Your task to perform on an android device: empty trash in google photos Image 0: 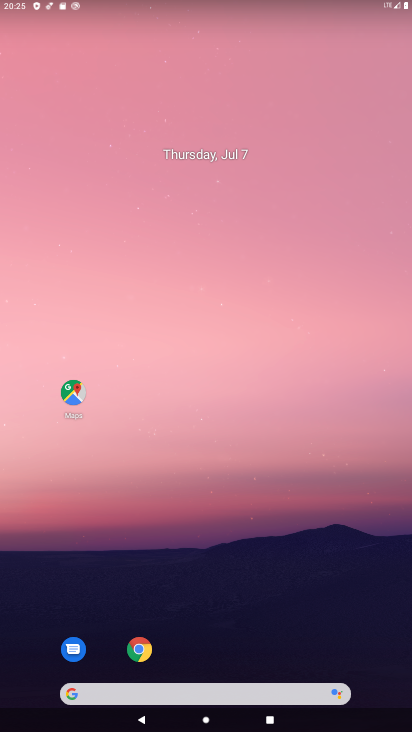
Step 0: press home button
Your task to perform on an android device: empty trash in google photos Image 1: 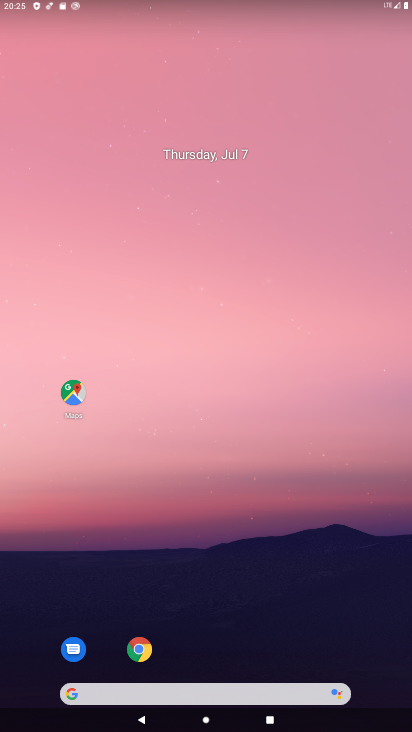
Step 1: drag from (209, 569) to (162, 82)
Your task to perform on an android device: empty trash in google photos Image 2: 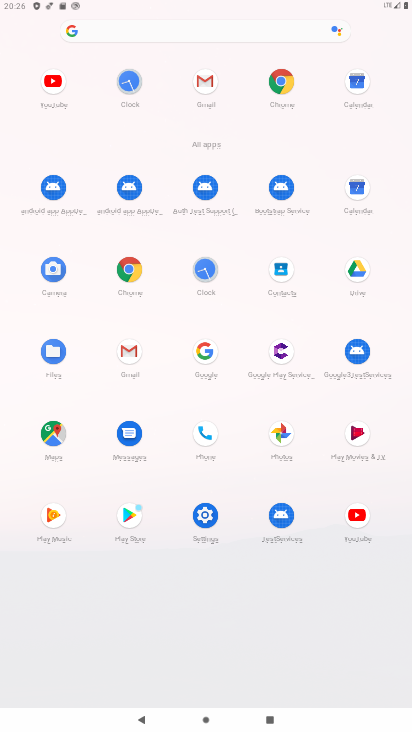
Step 2: click (283, 433)
Your task to perform on an android device: empty trash in google photos Image 3: 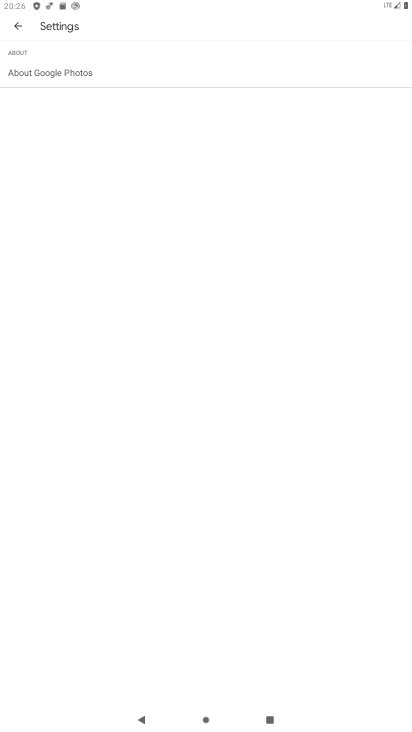
Step 3: click (15, 24)
Your task to perform on an android device: empty trash in google photos Image 4: 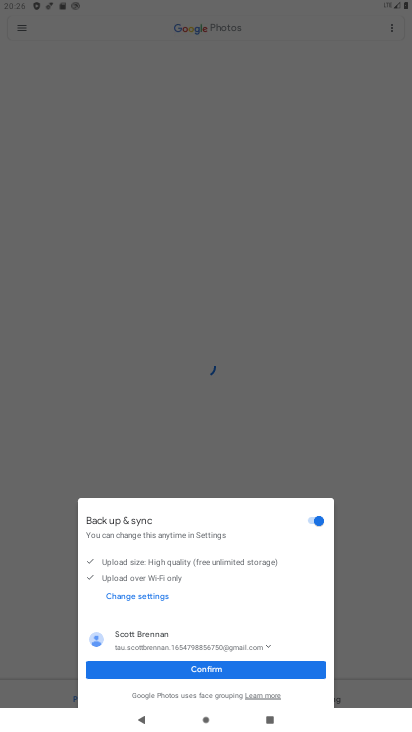
Step 4: click (180, 671)
Your task to perform on an android device: empty trash in google photos Image 5: 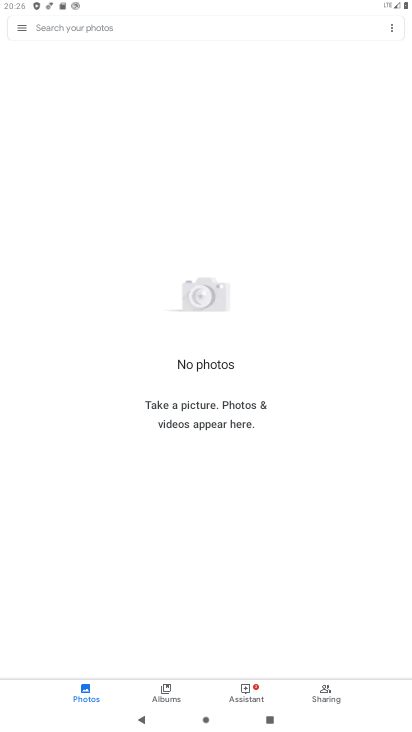
Step 5: click (25, 23)
Your task to perform on an android device: empty trash in google photos Image 6: 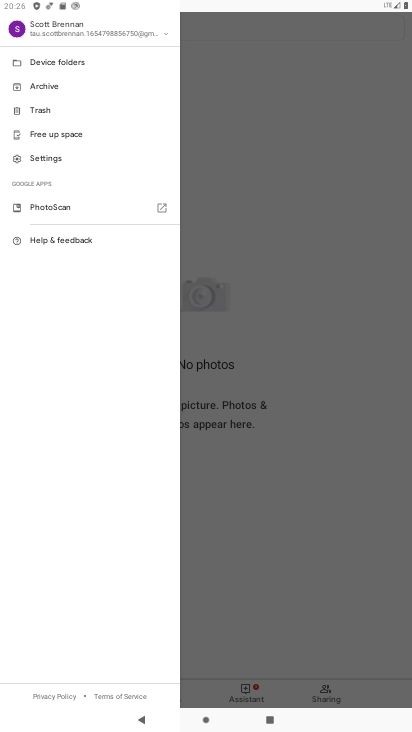
Step 6: click (44, 106)
Your task to perform on an android device: empty trash in google photos Image 7: 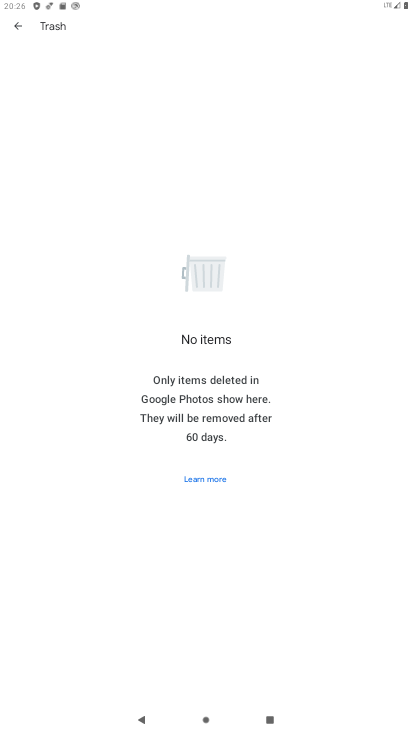
Step 7: task complete